Your task to perform on an android device: check android version Image 0: 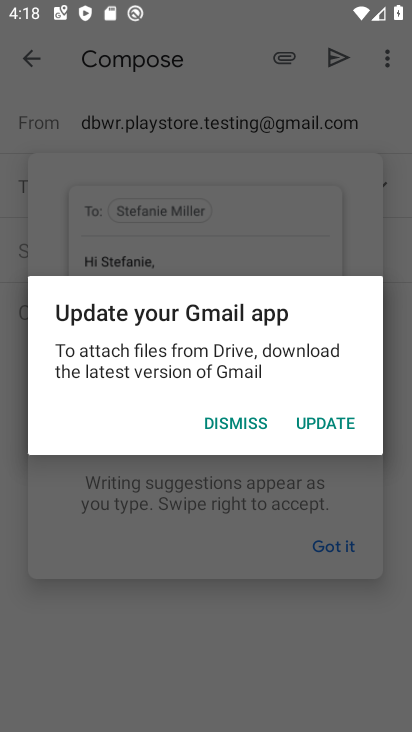
Step 0: press home button
Your task to perform on an android device: check android version Image 1: 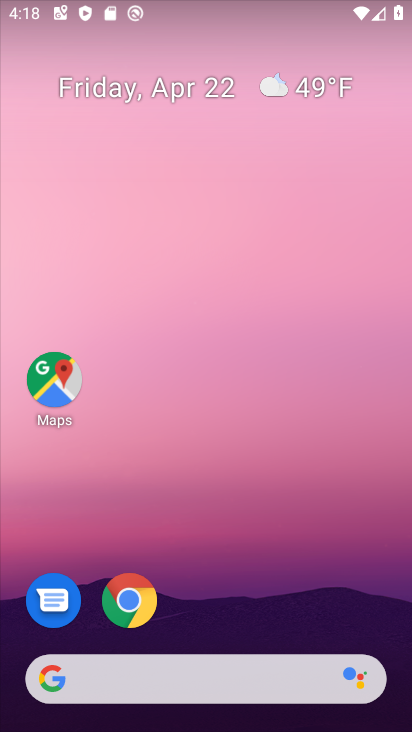
Step 1: drag from (225, 591) to (250, 18)
Your task to perform on an android device: check android version Image 2: 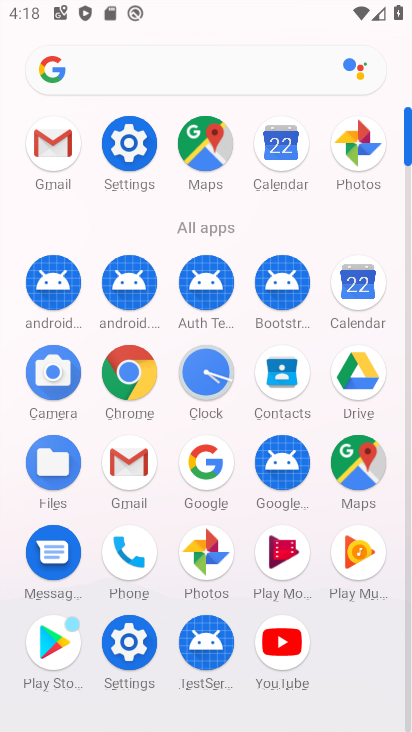
Step 2: click (127, 147)
Your task to perform on an android device: check android version Image 3: 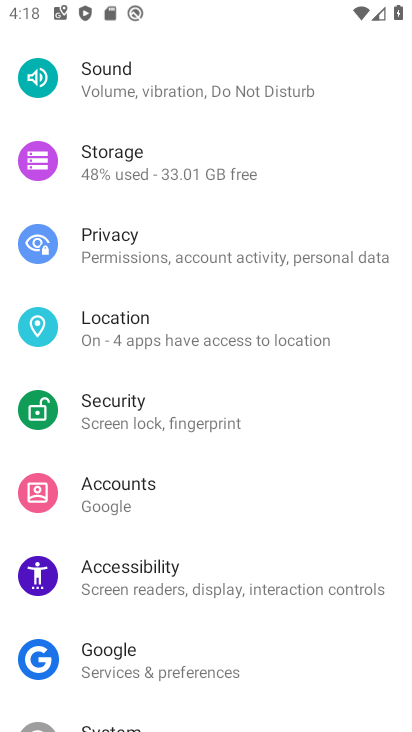
Step 3: drag from (200, 545) to (238, 364)
Your task to perform on an android device: check android version Image 4: 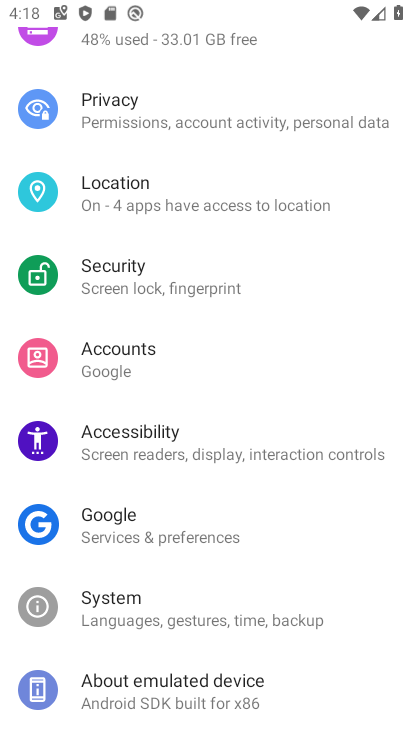
Step 4: click (197, 681)
Your task to perform on an android device: check android version Image 5: 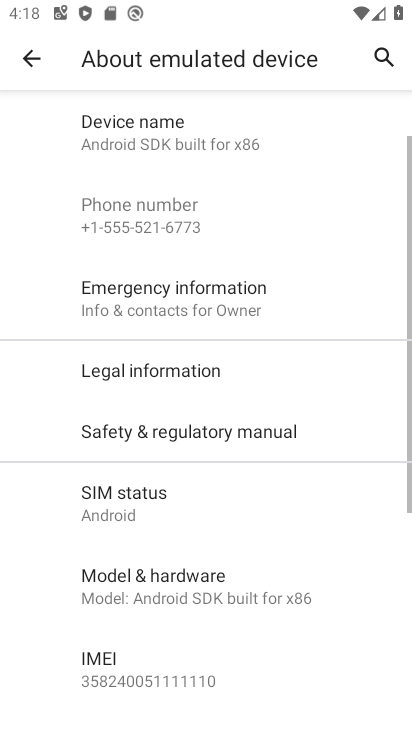
Step 5: drag from (257, 531) to (284, 438)
Your task to perform on an android device: check android version Image 6: 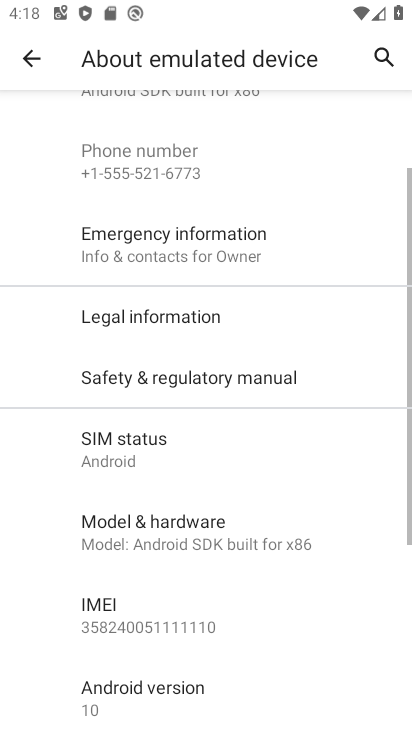
Step 6: drag from (215, 563) to (267, 437)
Your task to perform on an android device: check android version Image 7: 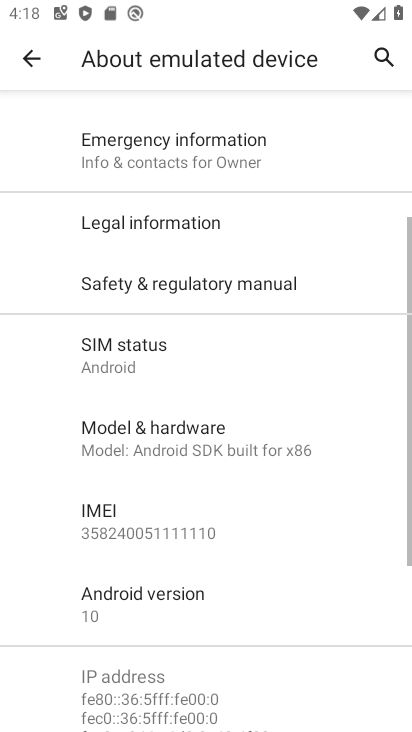
Step 7: click (112, 600)
Your task to perform on an android device: check android version Image 8: 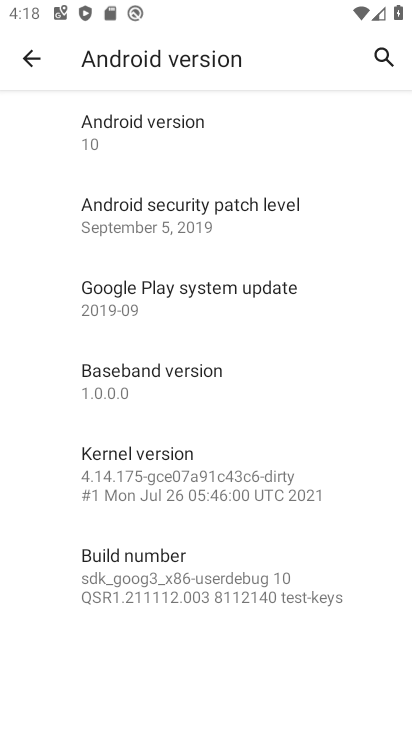
Step 8: task complete